Your task to perform on an android device: turn smart compose on in the gmail app Image 0: 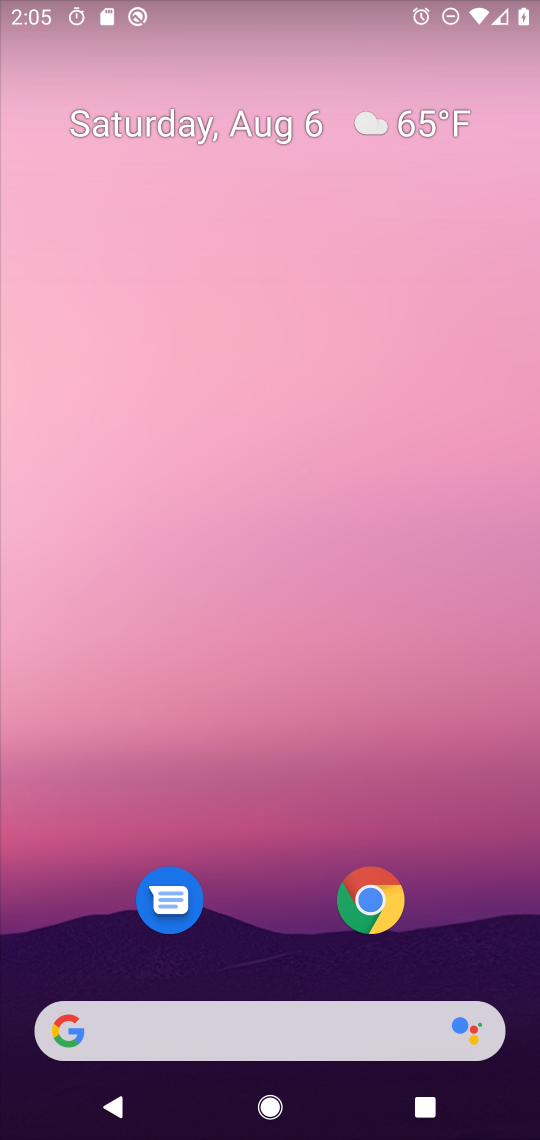
Step 0: drag from (279, 716) to (276, 80)
Your task to perform on an android device: turn smart compose on in the gmail app Image 1: 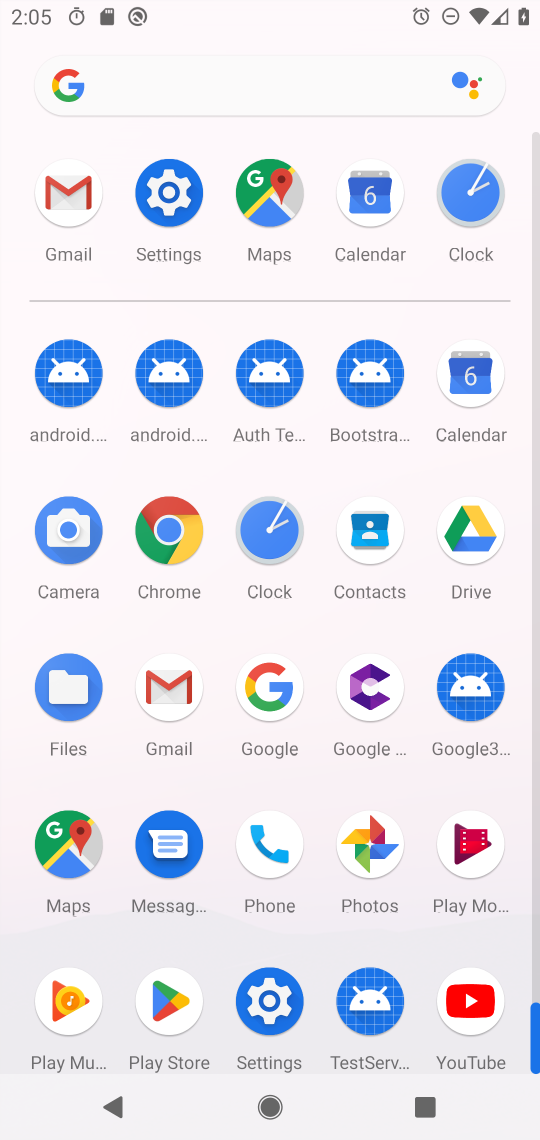
Step 1: click (168, 686)
Your task to perform on an android device: turn smart compose on in the gmail app Image 2: 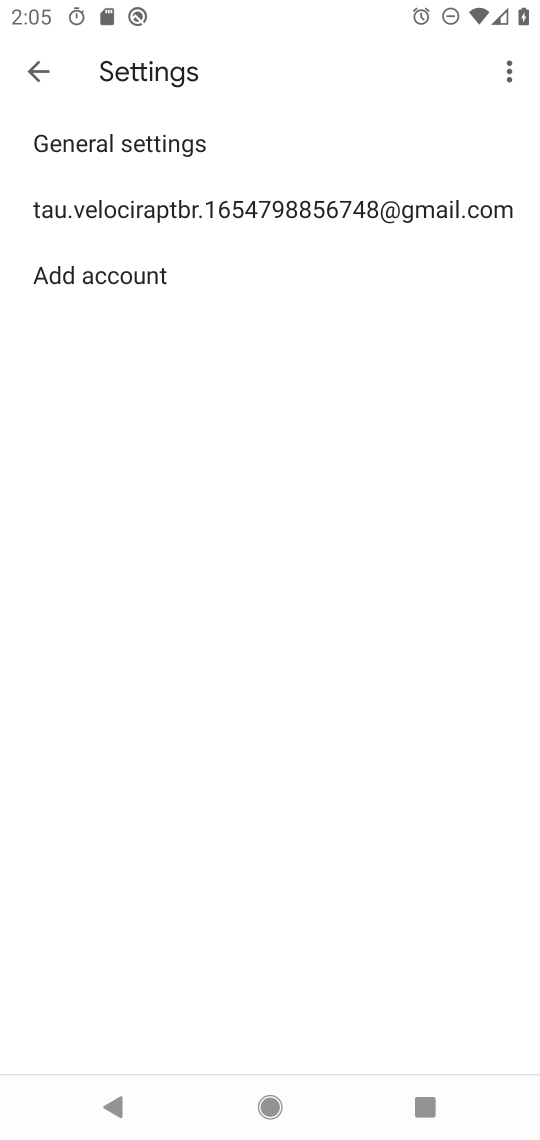
Step 2: click (257, 209)
Your task to perform on an android device: turn smart compose on in the gmail app Image 3: 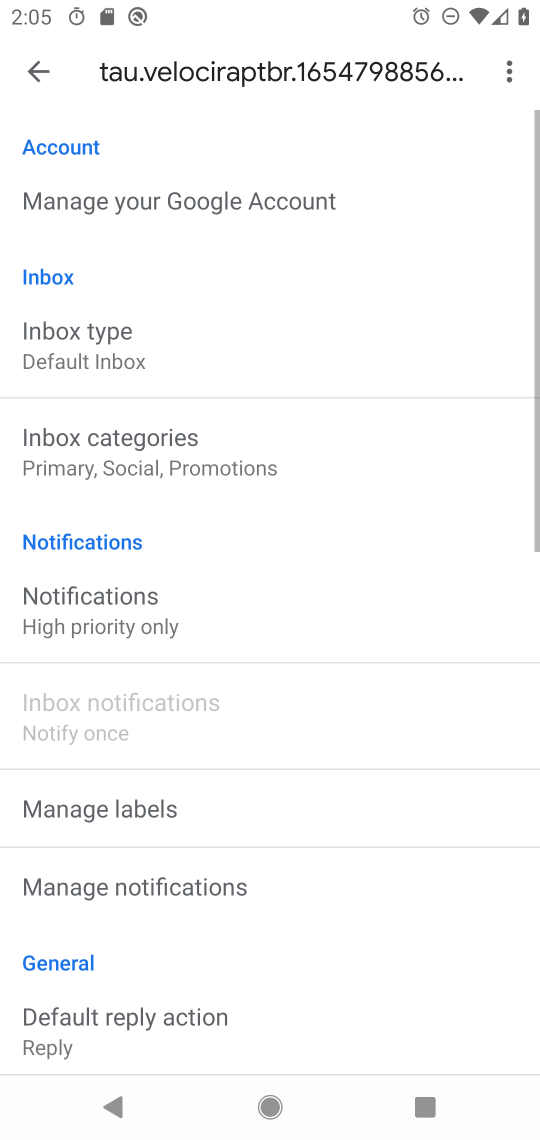
Step 3: task complete